Your task to perform on an android device: choose inbox layout in the gmail app Image 0: 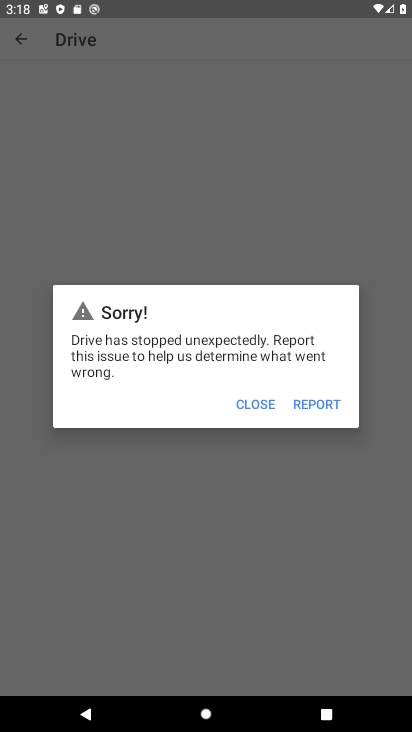
Step 0: press home button
Your task to perform on an android device: choose inbox layout in the gmail app Image 1: 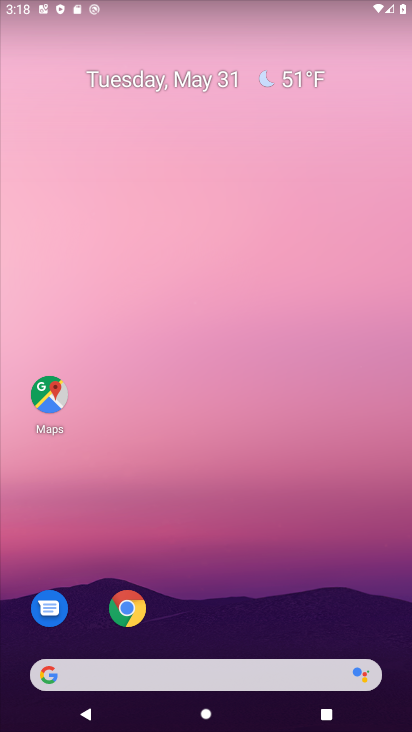
Step 1: drag from (241, 622) to (329, 280)
Your task to perform on an android device: choose inbox layout in the gmail app Image 2: 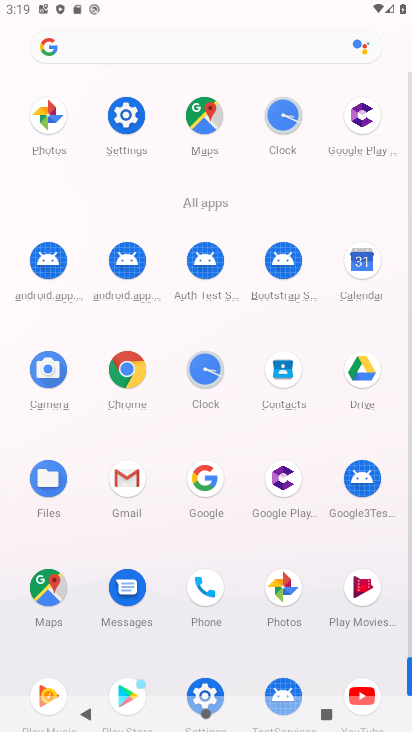
Step 2: click (137, 485)
Your task to perform on an android device: choose inbox layout in the gmail app Image 3: 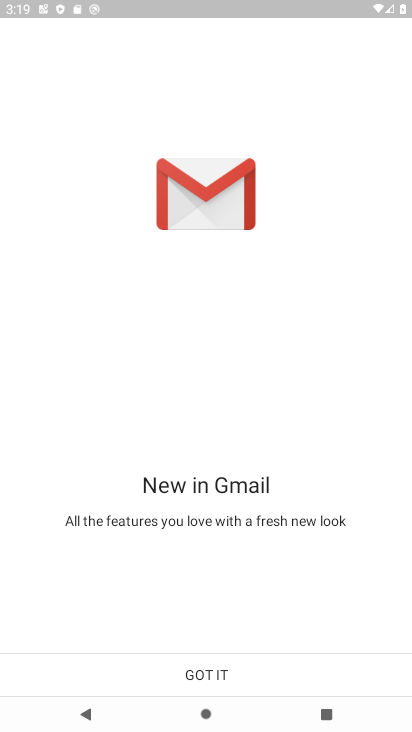
Step 3: click (147, 665)
Your task to perform on an android device: choose inbox layout in the gmail app Image 4: 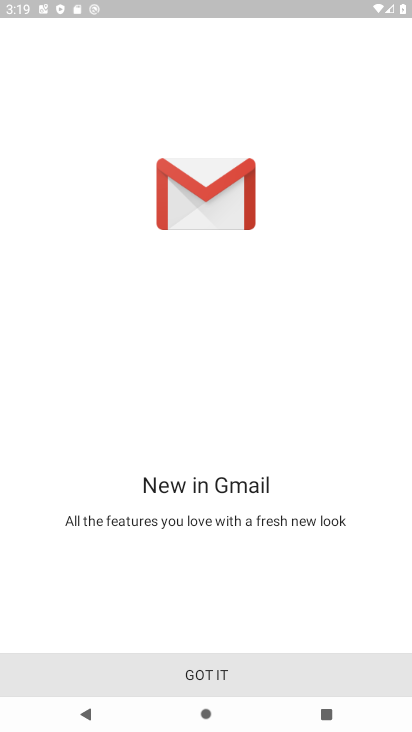
Step 4: click (147, 665)
Your task to perform on an android device: choose inbox layout in the gmail app Image 5: 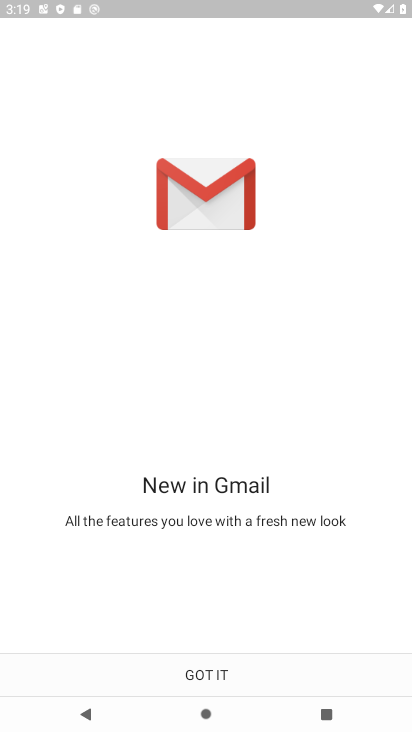
Step 5: click (147, 665)
Your task to perform on an android device: choose inbox layout in the gmail app Image 6: 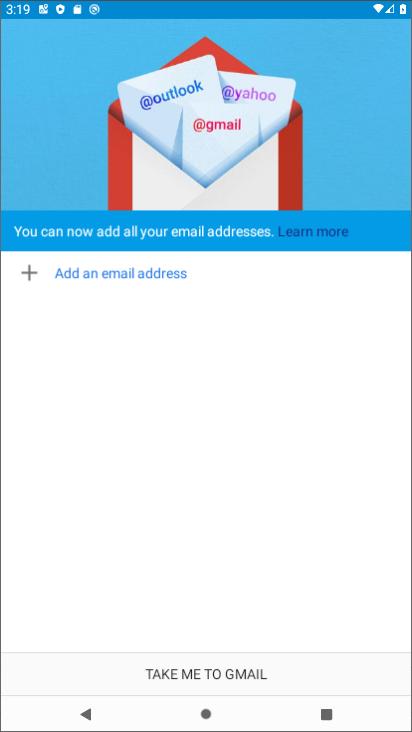
Step 6: click (147, 665)
Your task to perform on an android device: choose inbox layout in the gmail app Image 7: 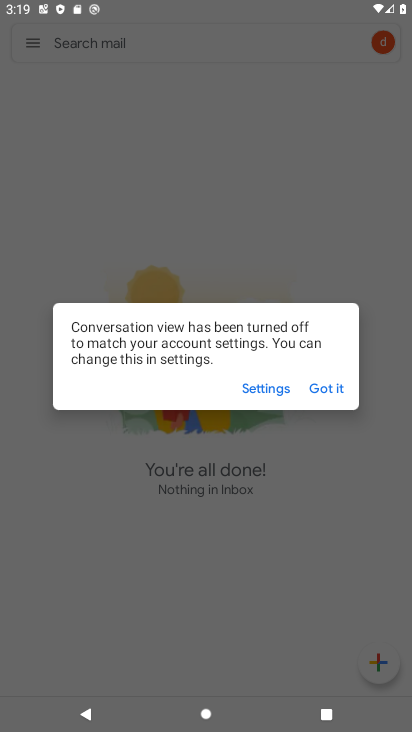
Step 7: click (326, 384)
Your task to perform on an android device: choose inbox layout in the gmail app Image 8: 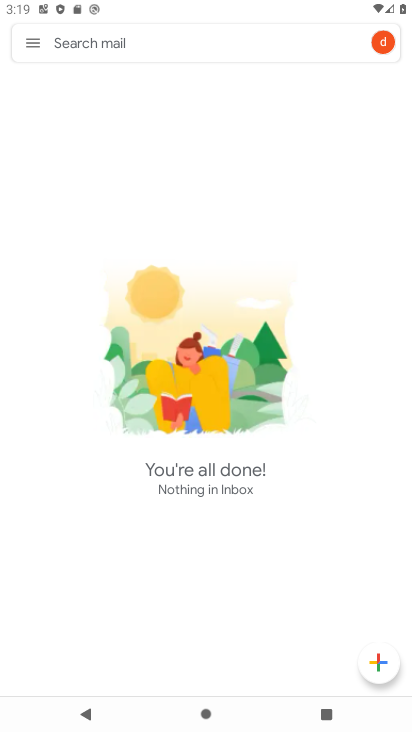
Step 8: click (26, 42)
Your task to perform on an android device: choose inbox layout in the gmail app Image 9: 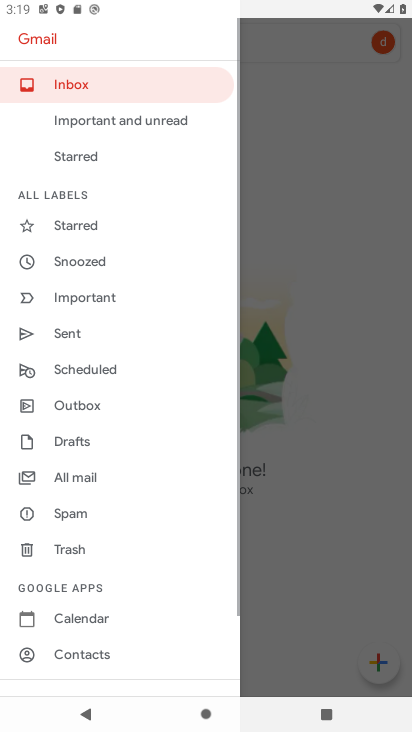
Step 9: drag from (64, 621) to (92, 444)
Your task to perform on an android device: choose inbox layout in the gmail app Image 10: 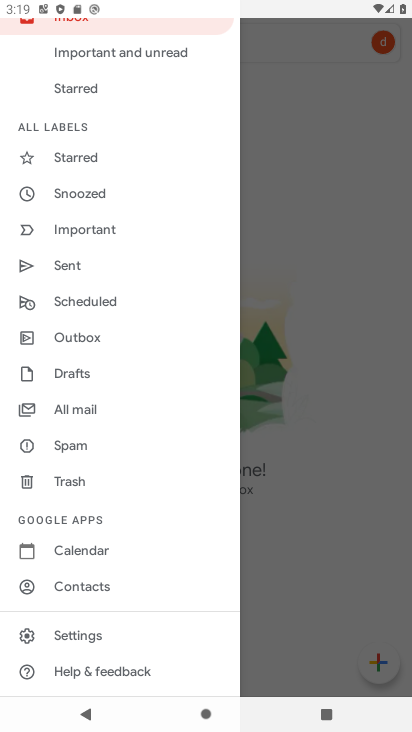
Step 10: click (83, 631)
Your task to perform on an android device: choose inbox layout in the gmail app Image 11: 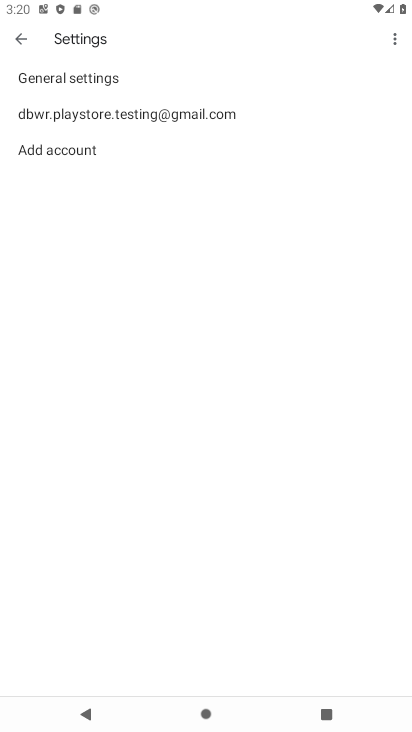
Step 11: click (157, 121)
Your task to perform on an android device: choose inbox layout in the gmail app Image 12: 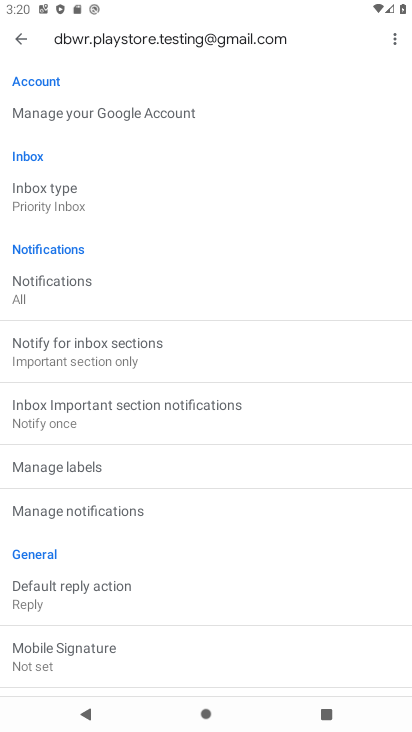
Step 12: click (62, 214)
Your task to perform on an android device: choose inbox layout in the gmail app Image 13: 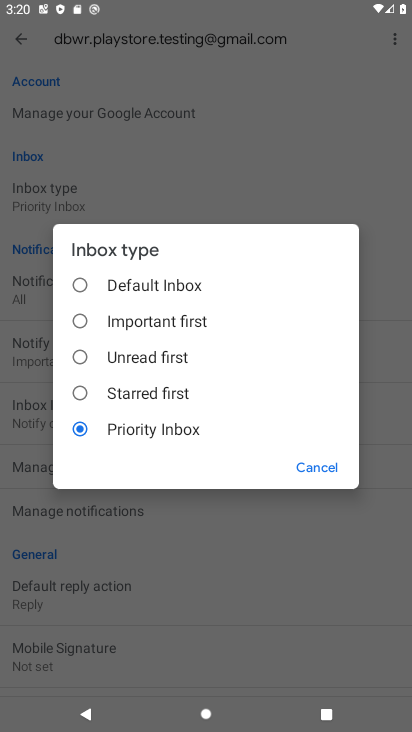
Step 13: click (159, 400)
Your task to perform on an android device: choose inbox layout in the gmail app Image 14: 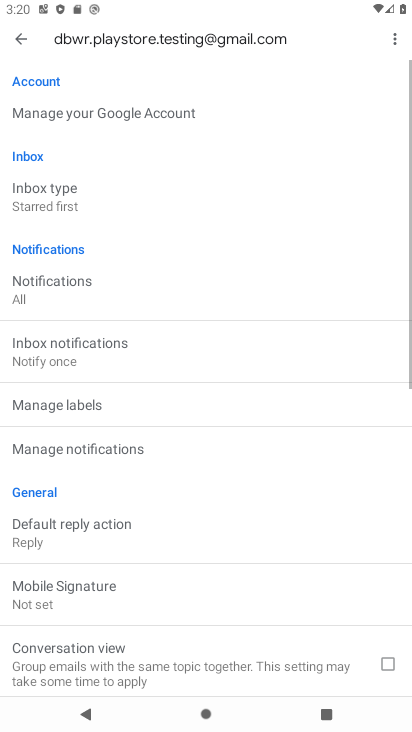
Step 14: task complete